Your task to perform on an android device: change timer sound Image 0: 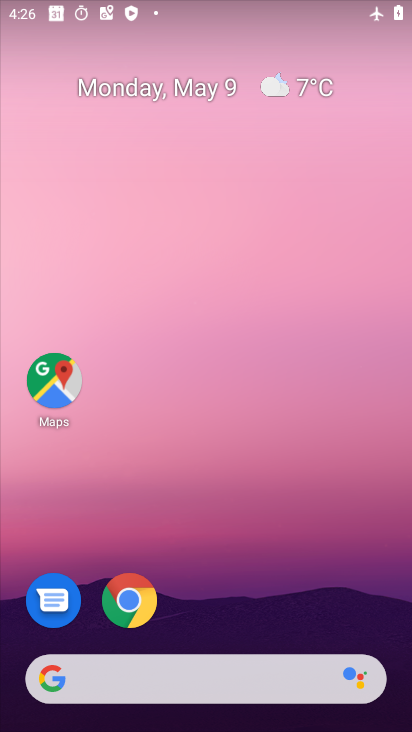
Step 0: drag from (261, 575) to (241, 104)
Your task to perform on an android device: change timer sound Image 1: 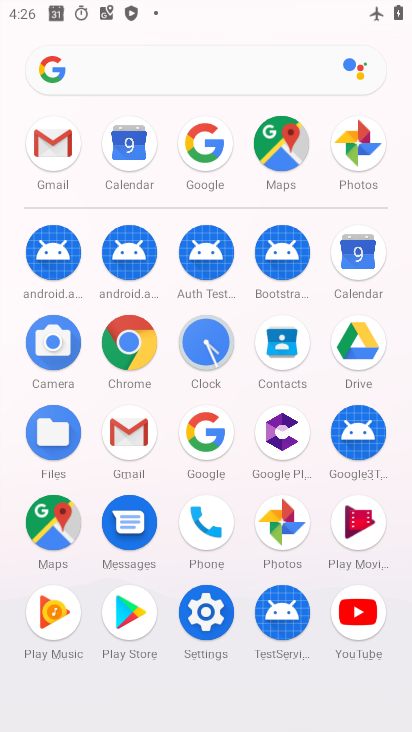
Step 1: click (207, 337)
Your task to perform on an android device: change timer sound Image 2: 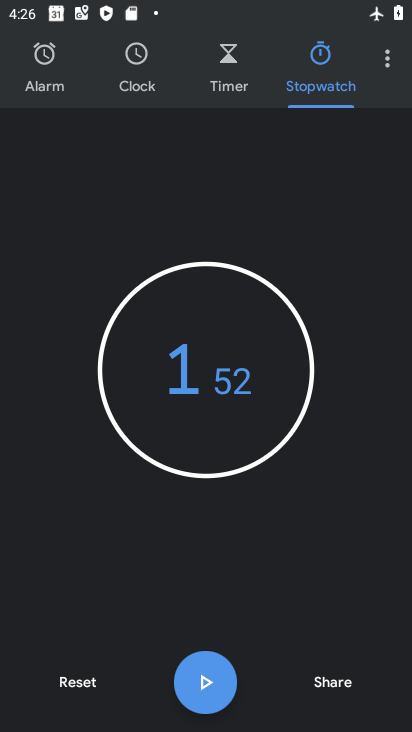
Step 2: click (384, 47)
Your task to perform on an android device: change timer sound Image 3: 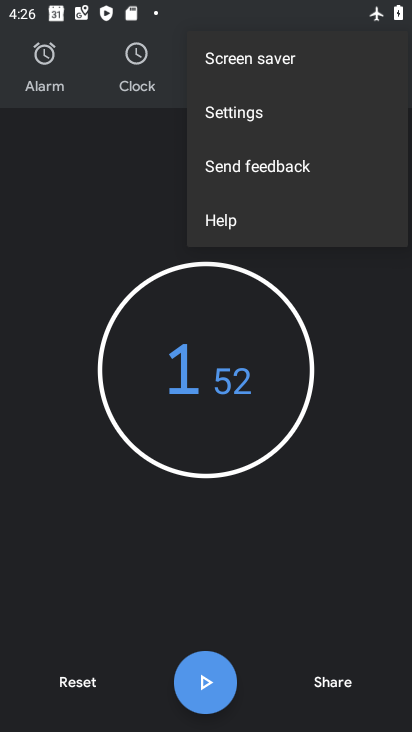
Step 3: click (279, 111)
Your task to perform on an android device: change timer sound Image 4: 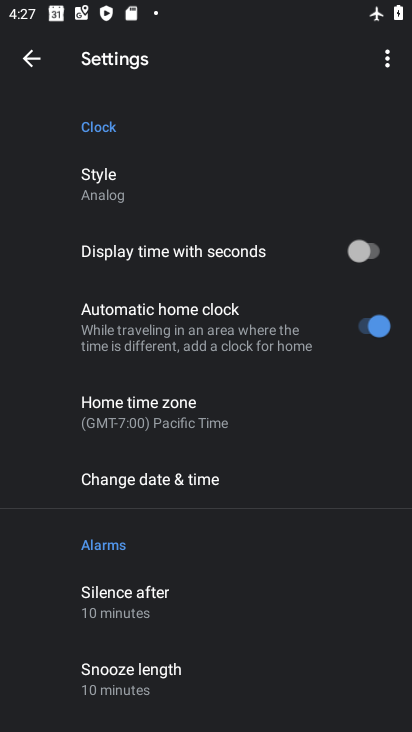
Step 4: drag from (304, 486) to (351, 127)
Your task to perform on an android device: change timer sound Image 5: 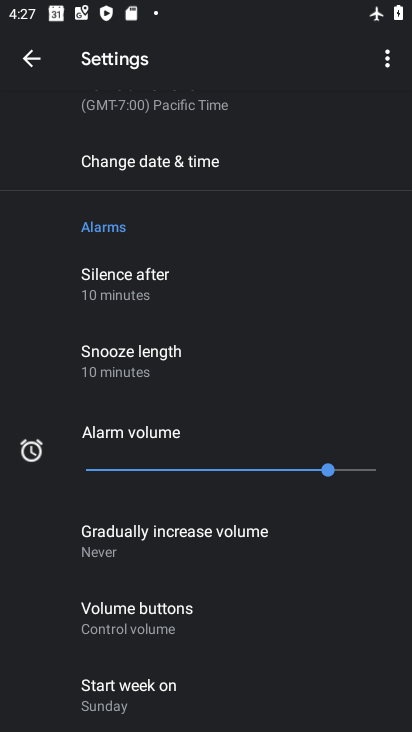
Step 5: drag from (255, 510) to (301, 179)
Your task to perform on an android device: change timer sound Image 6: 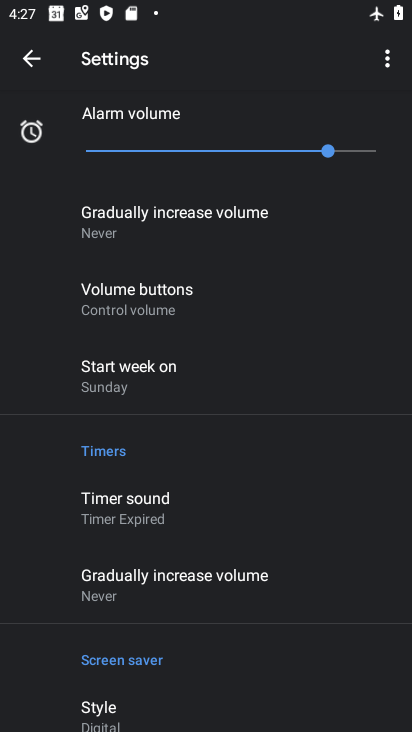
Step 6: click (164, 507)
Your task to perform on an android device: change timer sound Image 7: 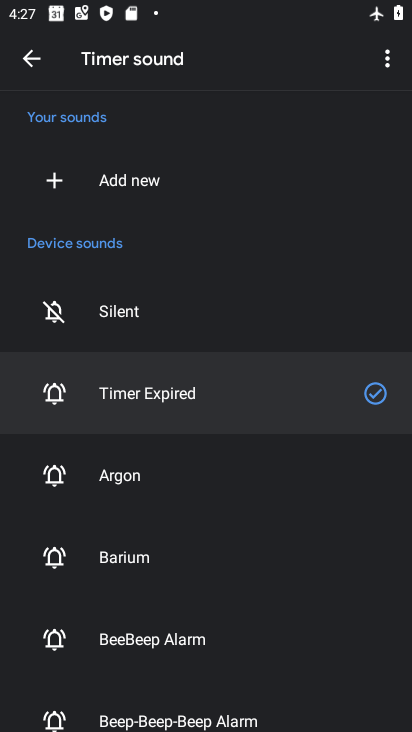
Step 7: click (166, 464)
Your task to perform on an android device: change timer sound Image 8: 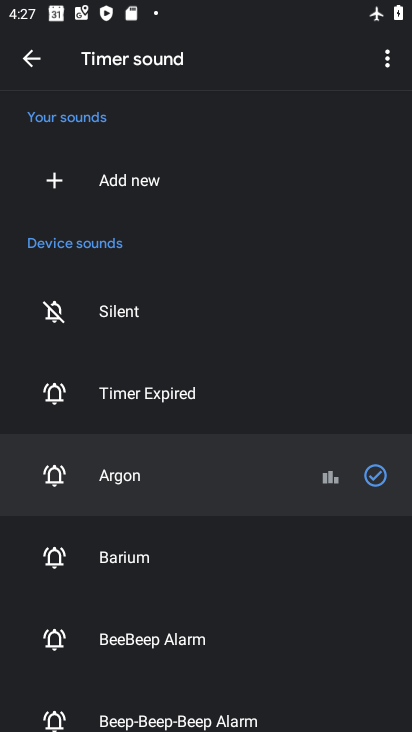
Step 8: task complete